Your task to perform on an android device: check out phone information Image 0: 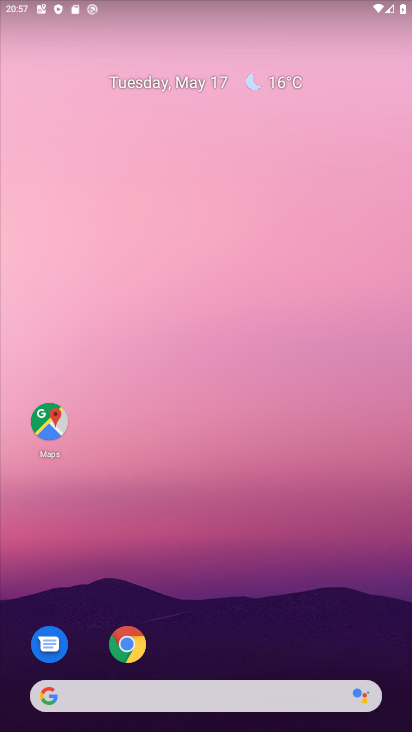
Step 0: drag from (222, 651) to (279, 127)
Your task to perform on an android device: check out phone information Image 1: 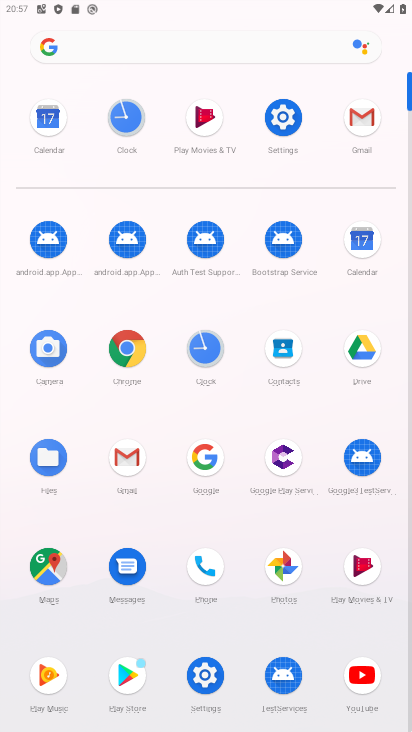
Step 1: click (280, 115)
Your task to perform on an android device: check out phone information Image 2: 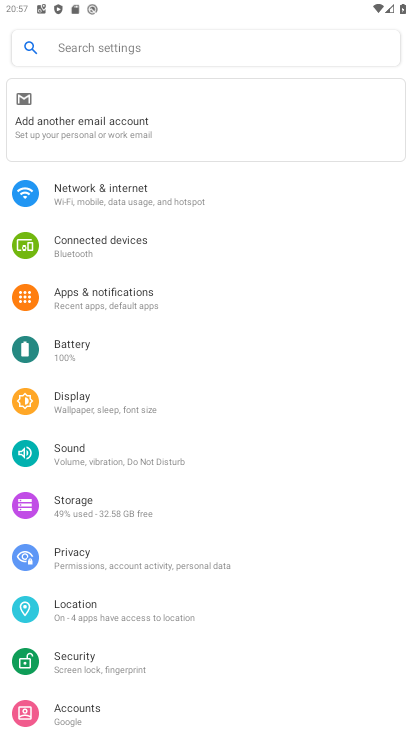
Step 2: drag from (123, 640) to (292, 100)
Your task to perform on an android device: check out phone information Image 3: 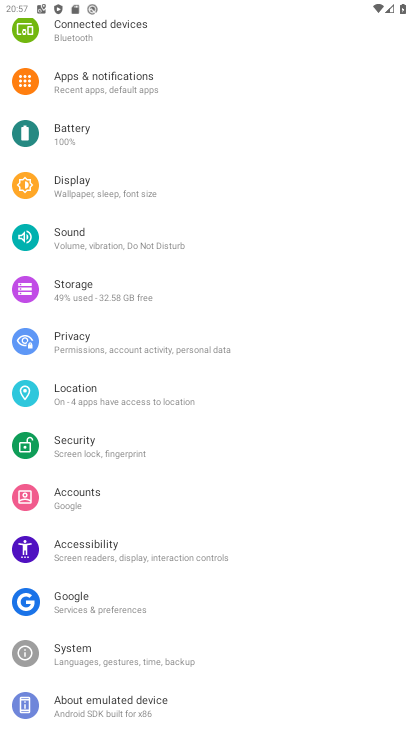
Step 3: click (150, 698)
Your task to perform on an android device: check out phone information Image 4: 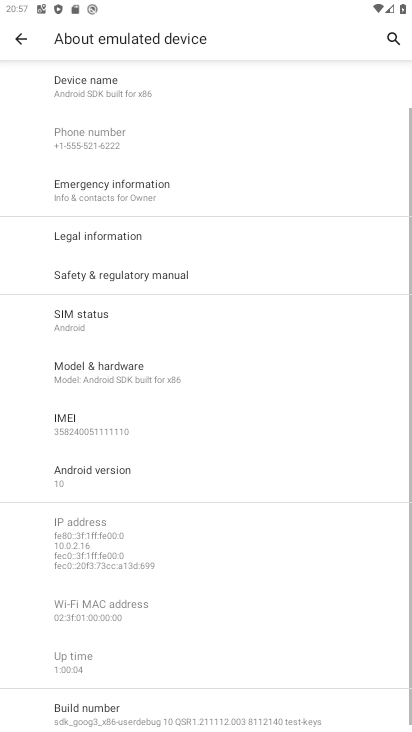
Step 4: task complete